Your task to perform on an android device: clear all cookies in the chrome app Image 0: 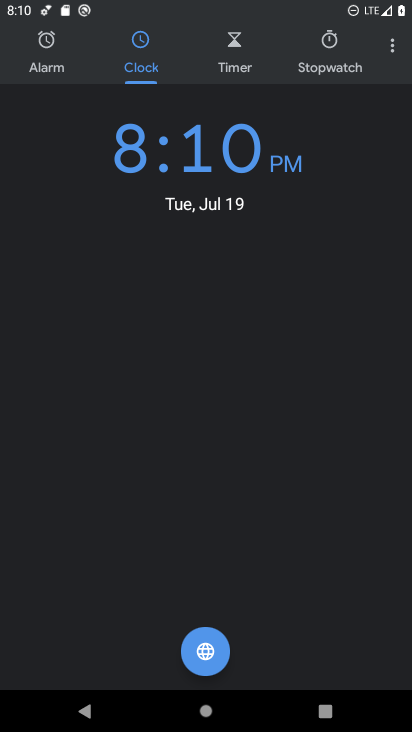
Step 0: press home button
Your task to perform on an android device: clear all cookies in the chrome app Image 1: 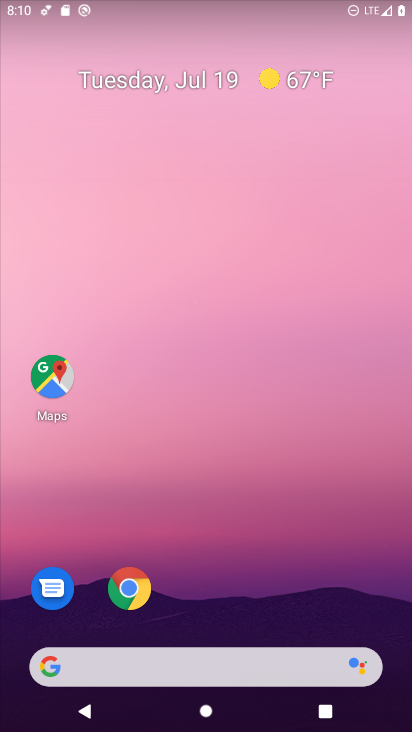
Step 1: drag from (359, 609) to (354, 134)
Your task to perform on an android device: clear all cookies in the chrome app Image 2: 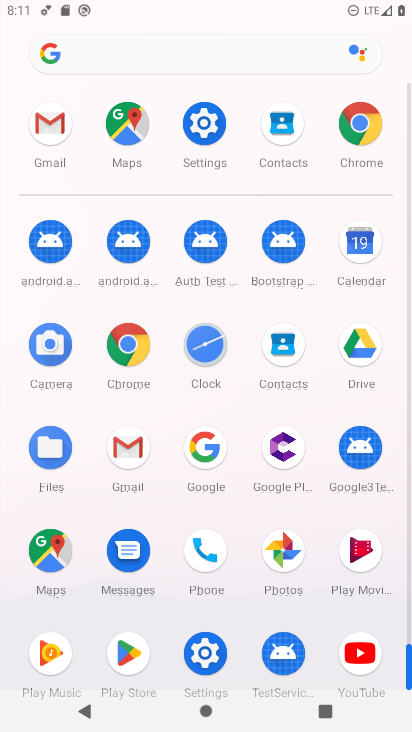
Step 2: click (140, 350)
Your task to perform on an android device: clear all cookies in the chrome app Image 3: 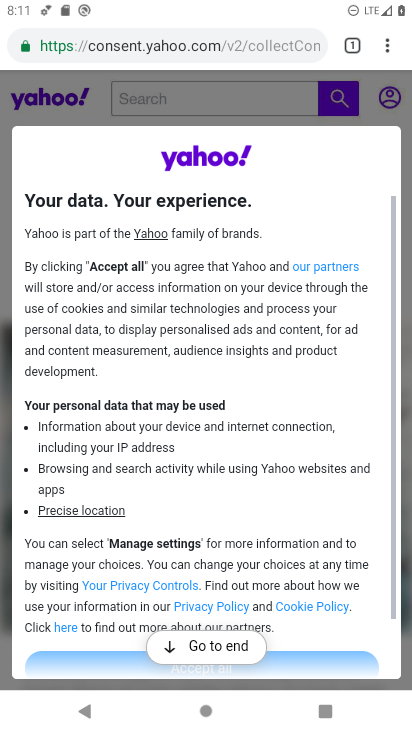
Step 3: click (387, 49)
Your task to perform on an android device: clear all cookies in the chrome app Image 4: 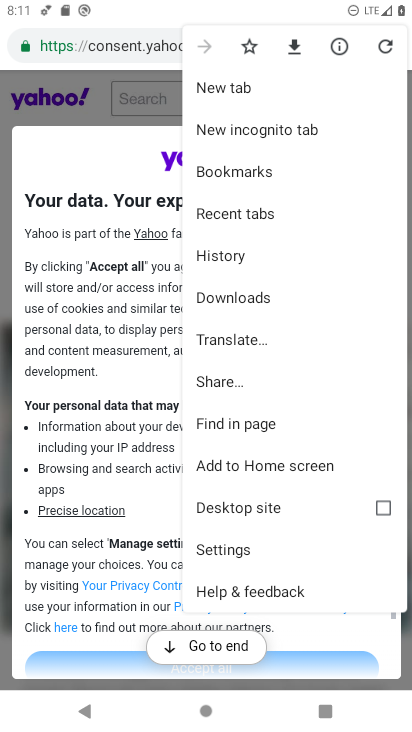
Step 4: click (268, 552)
Your task to perform on an android device: clear all cookies in the chrome app Image 5: 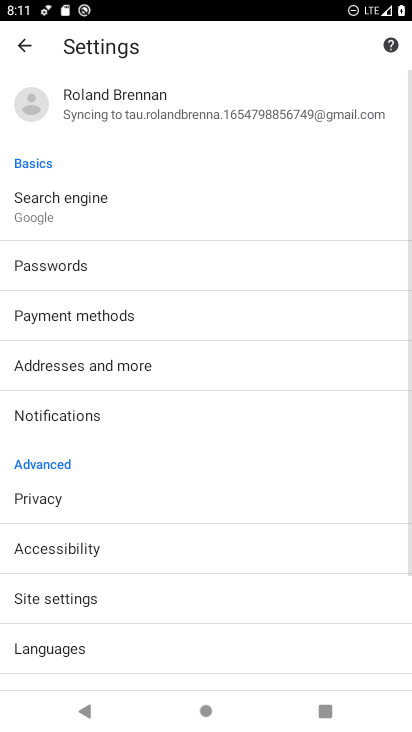
Step 5: drag from (258, 566) to (260, 498)
Your task to perform on an android device: clear all cookies in the chrome app Image 6: 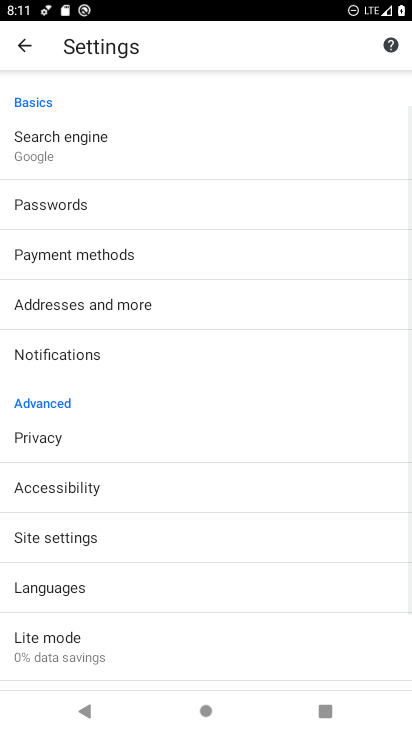
Step 6: drag from (269, 584) to (273, 482)
Your task to perform on an android device: clear all cookies in the chrome app Image 7: 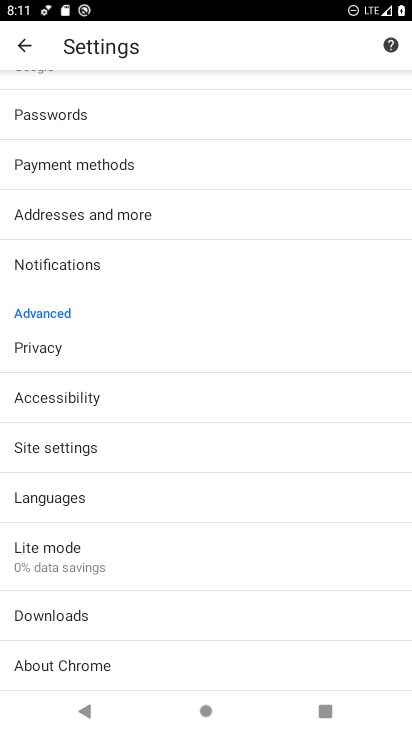
Step 7: drag from (268, 566) to (268, 488)
Your task to perform on an android device: clear all cookies in the chrome app Image 8: 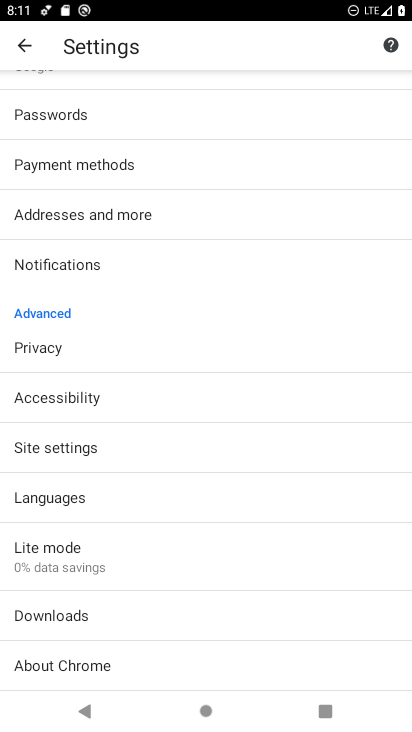
Step 8: click (225, 350)
Your task to perform on an android device: clear all cookies in the chrome app Image 9: 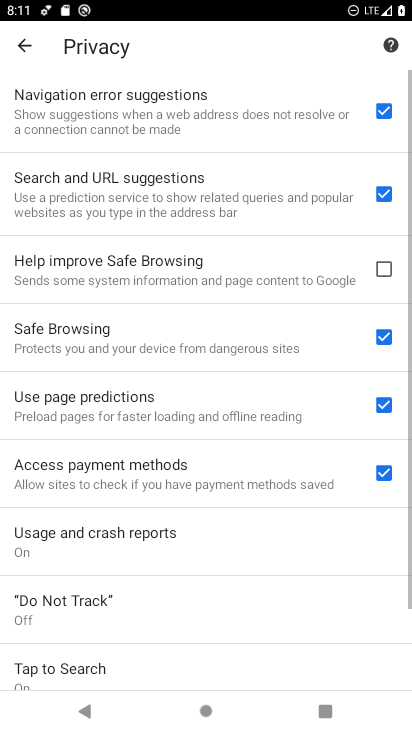
Step 9: drag from (267, 528) to (274, 482)
Your task to perform on an android device: clear all cookies in the chrome app Image 10: 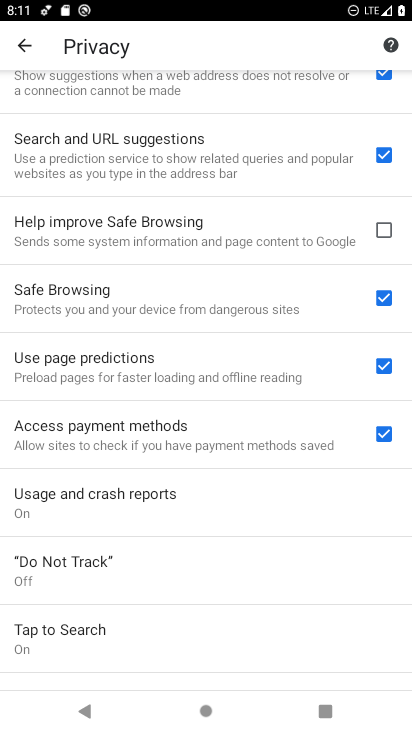
Step 10: drag from (274, 553) to (277, 470)
Your task to perform on an android device: clear all cookies in the chrome app Image 11: 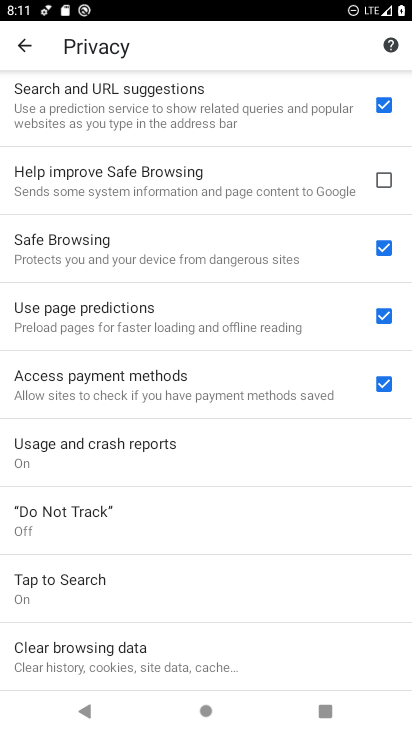
Step 11: click (290, 646)
Your task to perform on an android device: clear all cookies in the chrome app Image 12: 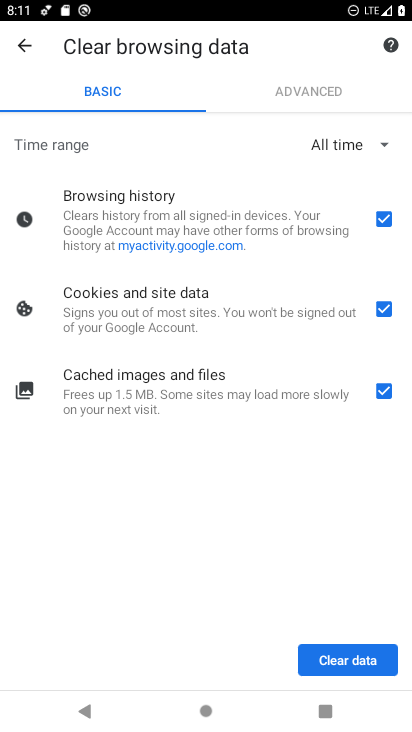
Step 12: click (363, 659)
Your task to perform on an android device: clear all cookies in the chrome app Image 13: 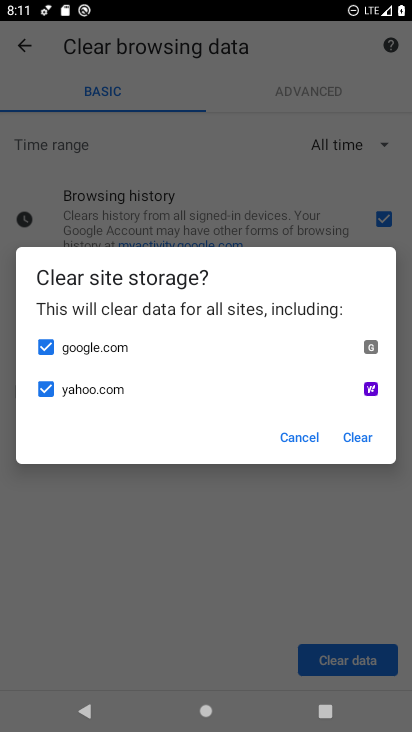
Step 13: click (353, 431)
Your task to perform on an android device: clear all cookies in the chrome app Image 14: 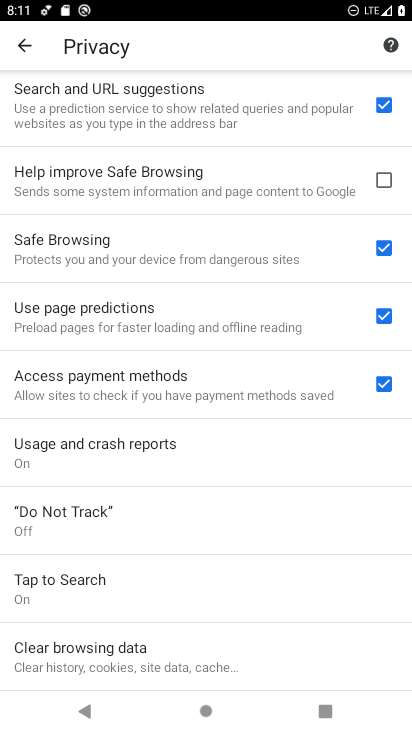
Step 14: task complete